Your task to perform on an android device: allow notifications from all sites in the chrome app Image 0: 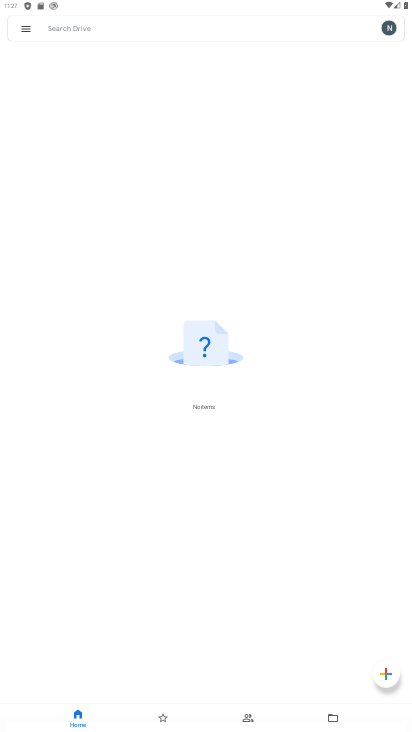
Step 0: press home button
Your task to perform on an android device: allow notifications from all sites in the chrome app Image 1: 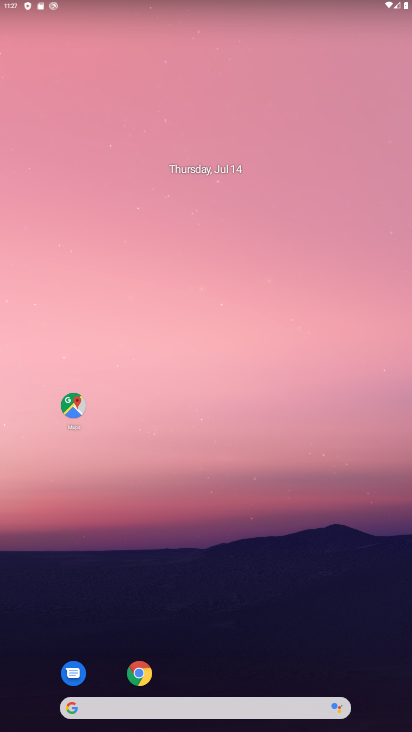
Step 1: click (137, 670)
Your task to perform on an android device: allow notifications from all sites in the chrome app Image 2: 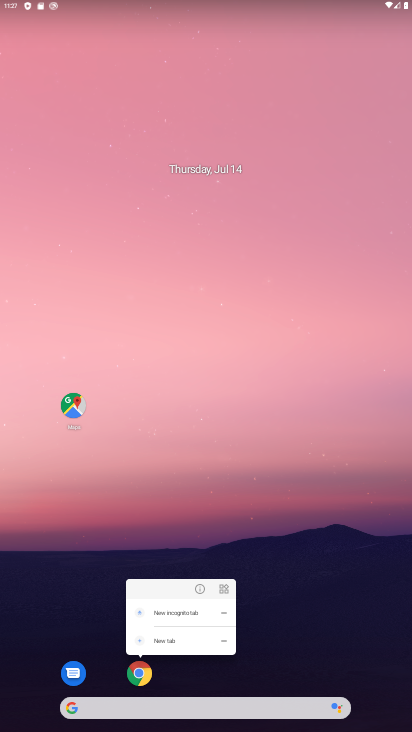
Step 2: click (198, 587)
Your task to perform on an android device: allow notifications from all sites in the chrome app Image 3: 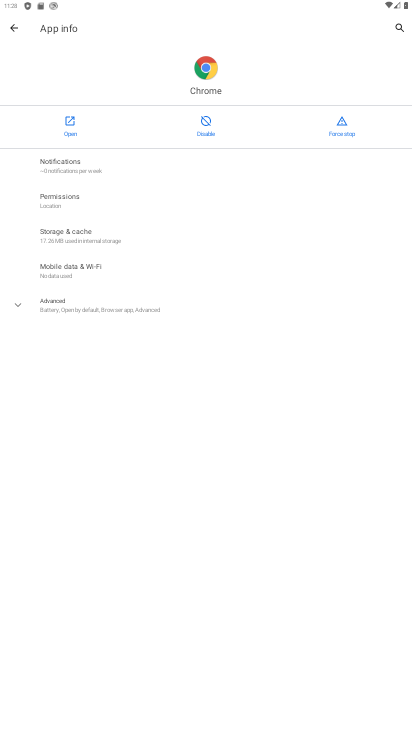
Step 3: click (75, 169)
Your task to perform on an android device: allow notifications from all sites in the chrome app Image 4: 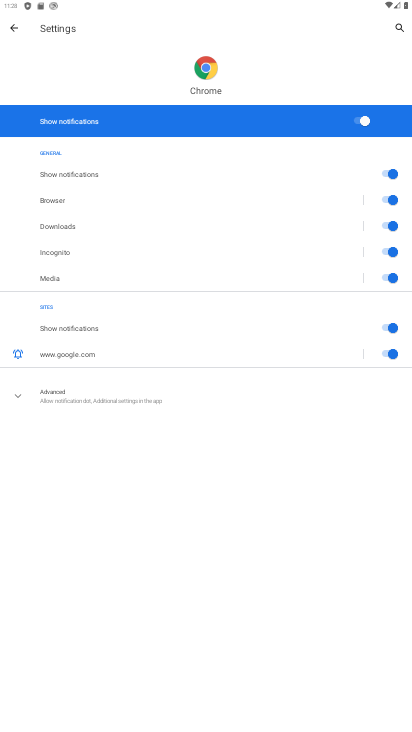
Step 4: task complete